Your task to perform on an android device: Open Android settings Image 0: 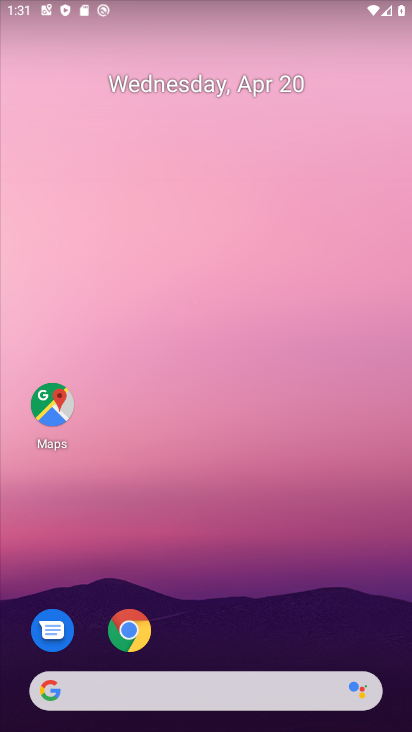
Step 0: drag from (336, 641) to (339, 94)
Your task to perform on an android device: Open Android settings Image 1: 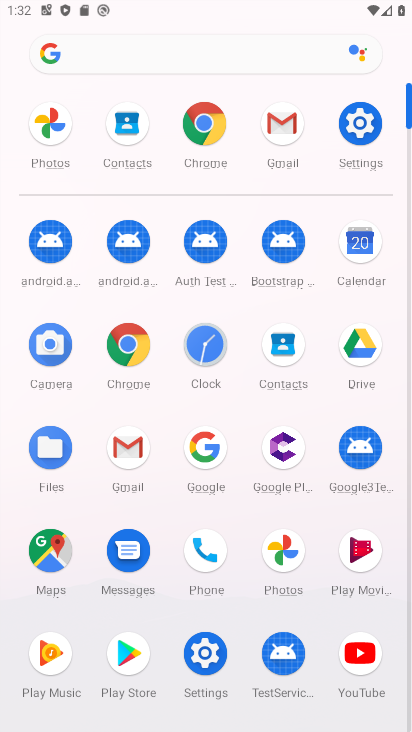
Step 1: click (197, 647)
Your task to perform on an android device: Open Android settings Image 2: 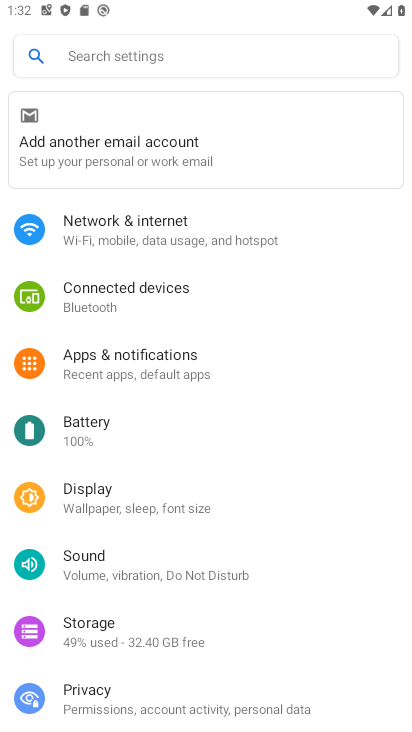
Step 2: drag from (270, 611) to (254, 240)
Your task to perform on an android device: Open Android settings Image 3: 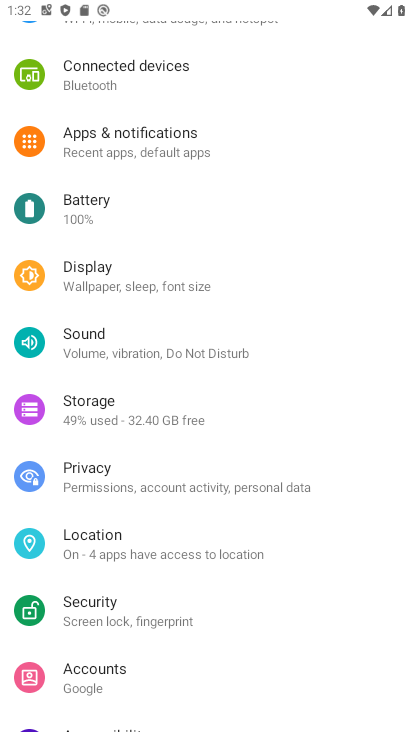
Step 3: drag from (276, 651) to (295, 309)
Your task to perform on an android device: Open Android settings Image 4: 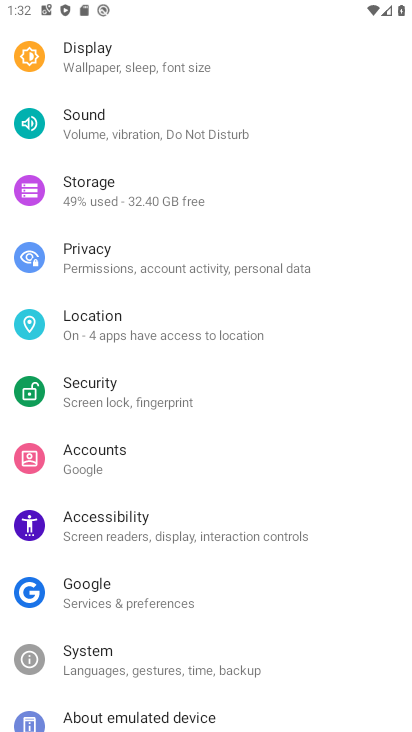
Step 4: click (223, 713)
Your task to perform on an android device: Open Android settings Image 5: 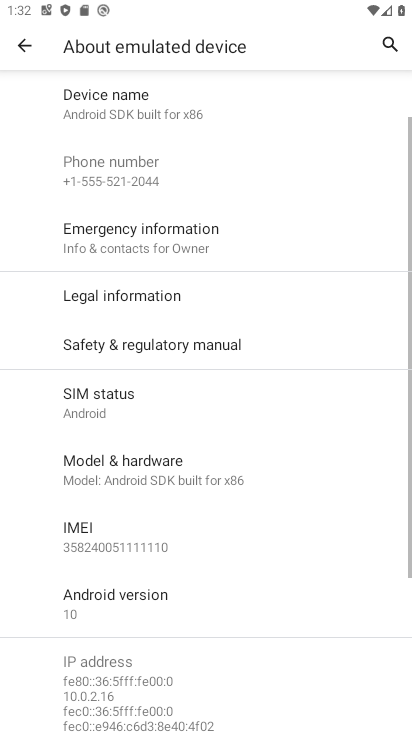
Step 5: task complete